Your task to perform on an android device: toggle sleep mode Image 0: 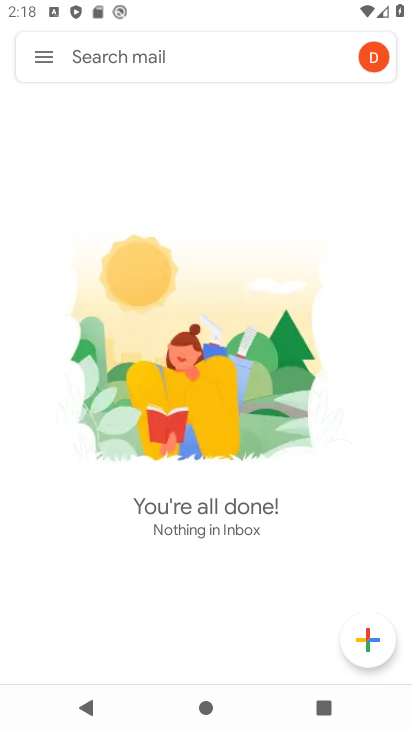
Step 0: press home button
Your task to perform on an android device: toggle sleep mode Image 1: 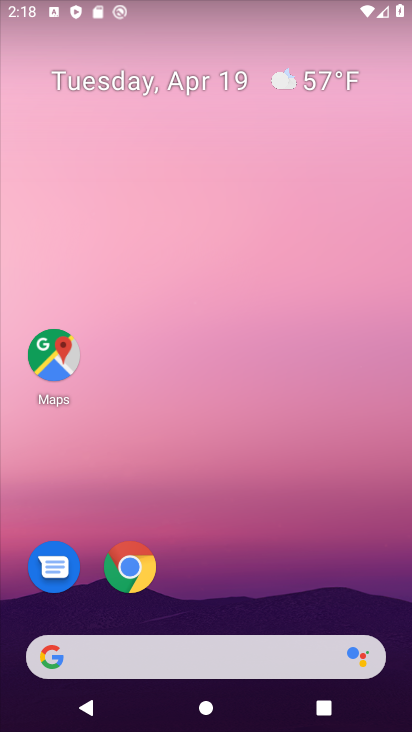
Step 1: drag from (354, 603) to (260, 20)
Your task to perform on an android device: toggle sleep mode Image 2: 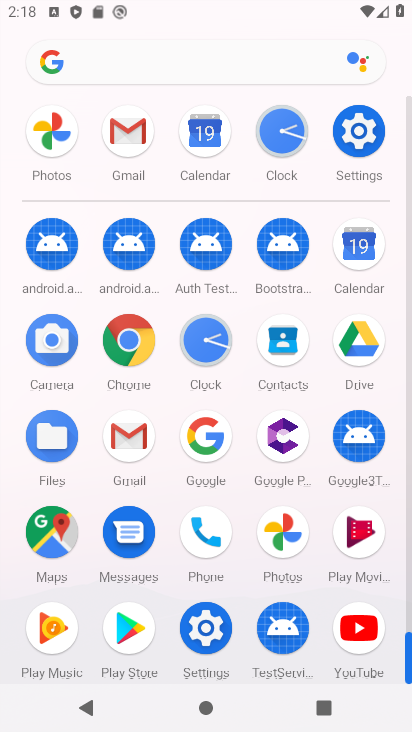
Step 2: click (203, 632)
Your task to perform on an android device: toggle sleep mode Image 3: 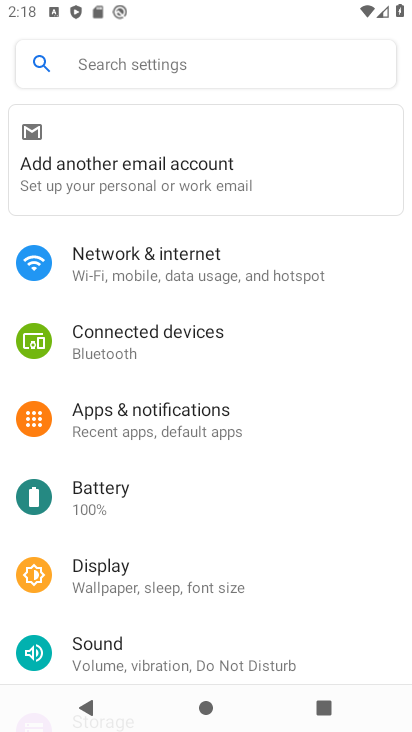
Step 3: drag from (314, 598) to (344, 234)
Your task to perform on an android device: toggle sleep mode Image 4: 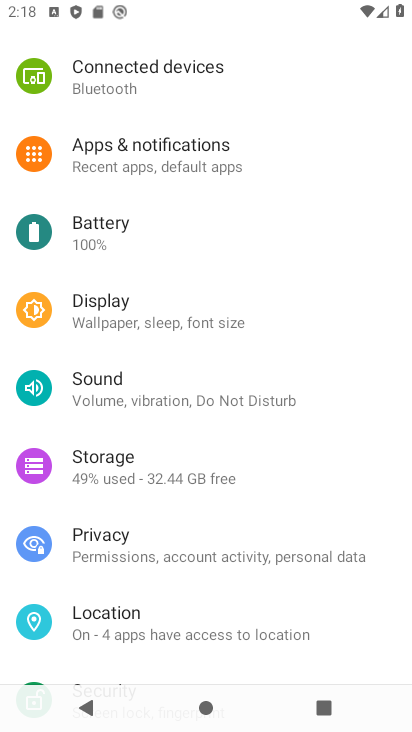
Step 4: click (147, 327)
Your task to perform on an android device: toggle sleep mode Image 5: 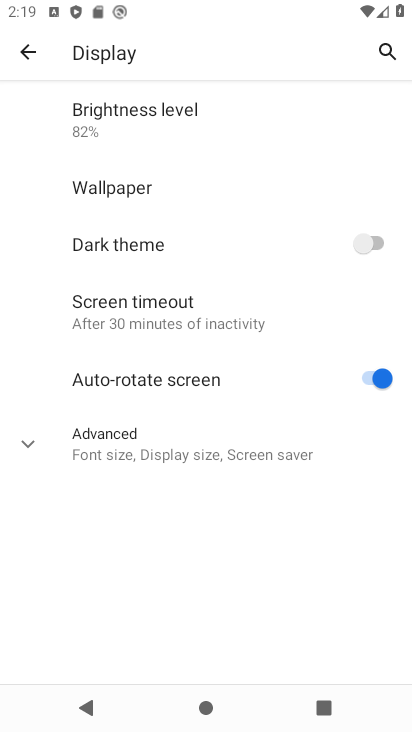
Step 5: click (26, 441)
Your task to perform on an android device: toggle sleep mode Image 6: 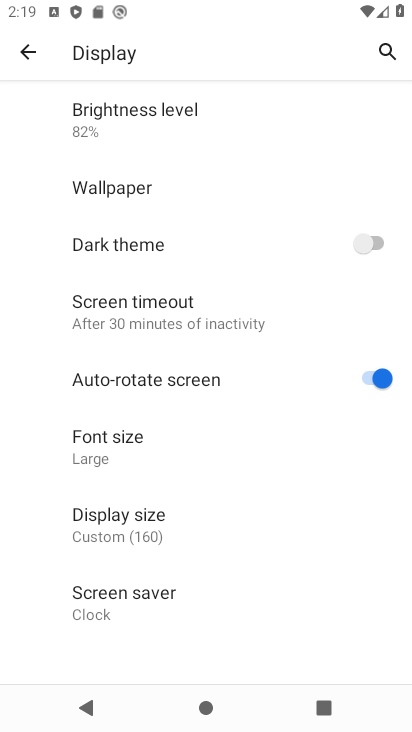
Step 6: task complete